Your task to perform on an android device: Go to Amazon Image 0: 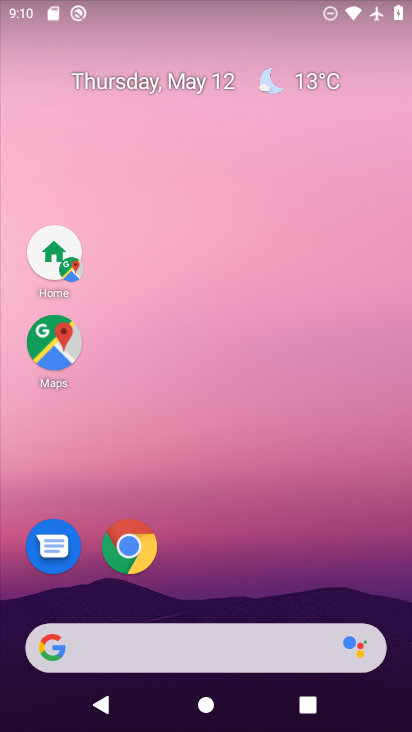
Step 0: click (134, 555)
Your task to perform on an android device: Go to Amazon Image 1: 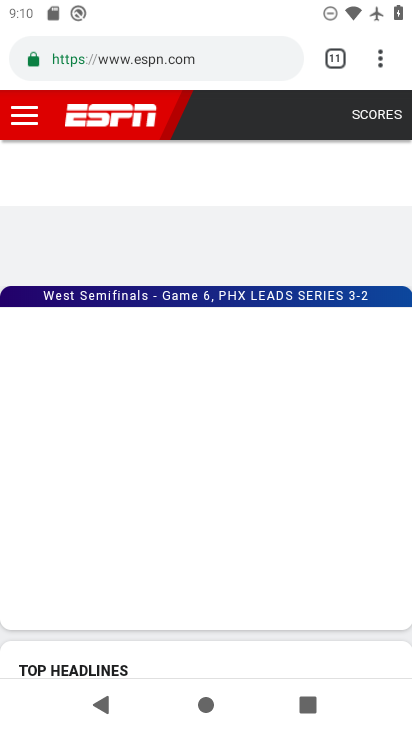
Step 1: drag from (378, 64) to (273, 130)
Your task to perform on an android device: Go to Amazon Image 2: 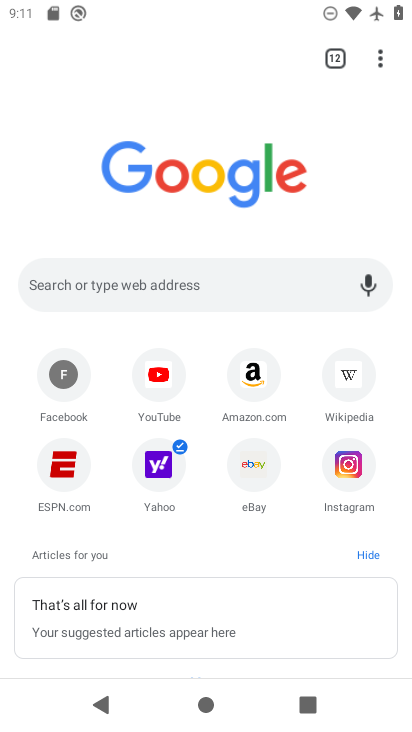
Step 2: click (259, 385)
Your task to perform on an android device: Go to Amazon Image 3: 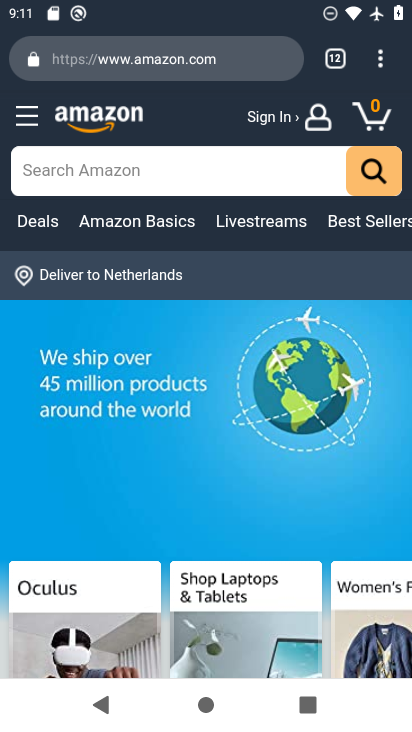
Step 3: task complete